Your task to perform on an android device: Open Google Maps and go to "Timeline" Image 0: 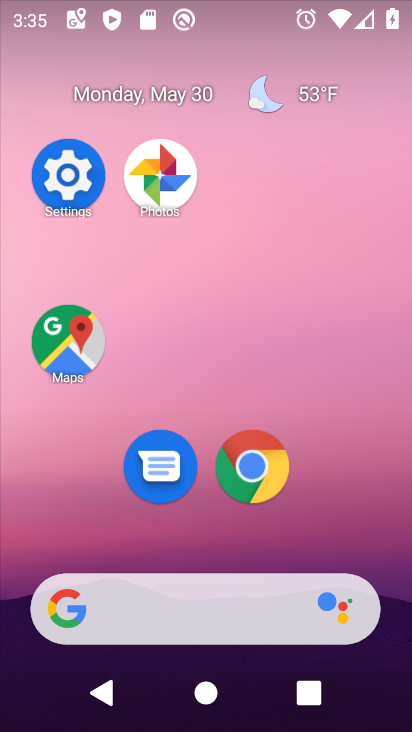
Step 0: click (86, 319)
Your task to perform on an android device: Open Google Maps and go to "Timeline" Image 1: 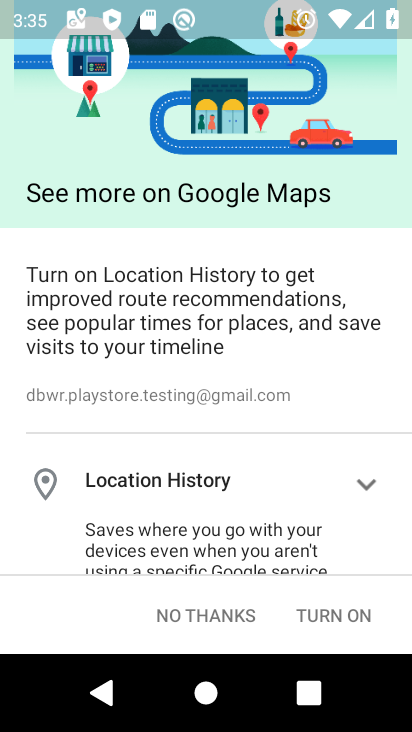
Step 1: click (328, 613)
Your task to perform on an android device: Open Google Maps and go to "Timeline" Image 2: 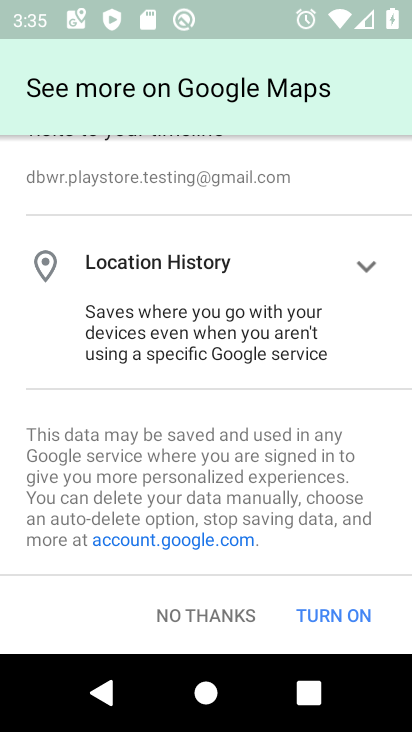
Step 2: click (355, 604)
Your task to perform on an android device: Open Google Maps and go to "Timeline" Image 3: 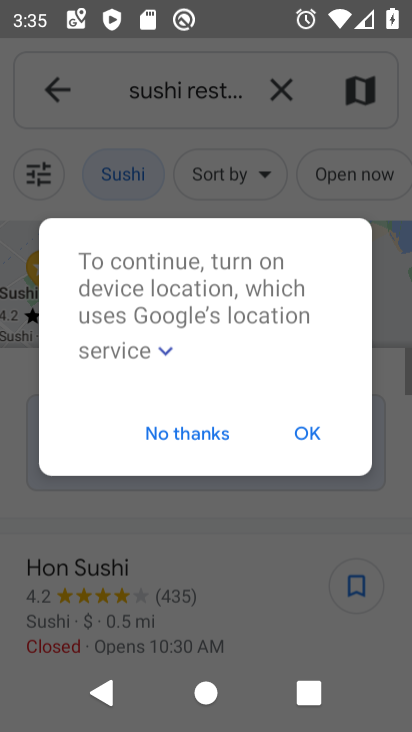
Step 3: click (341, 607)
Your task to perform on an android device: Open Google Maps and go to "Timeline" Image 4: 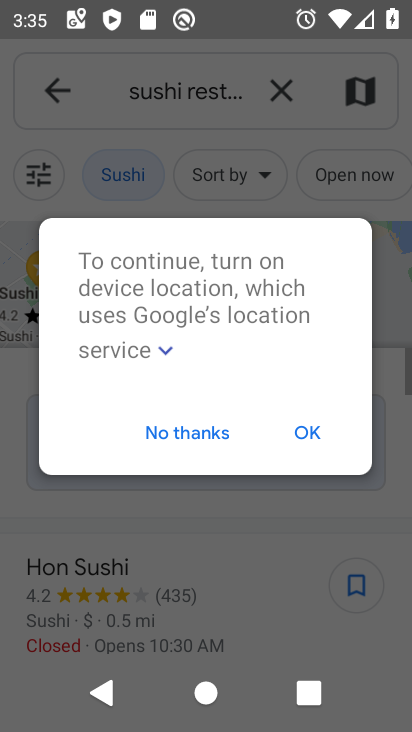
Step 4: click (293, 432)
Your task to perform on an android device: Open Google Maps and go to "Timeline" Image 5: 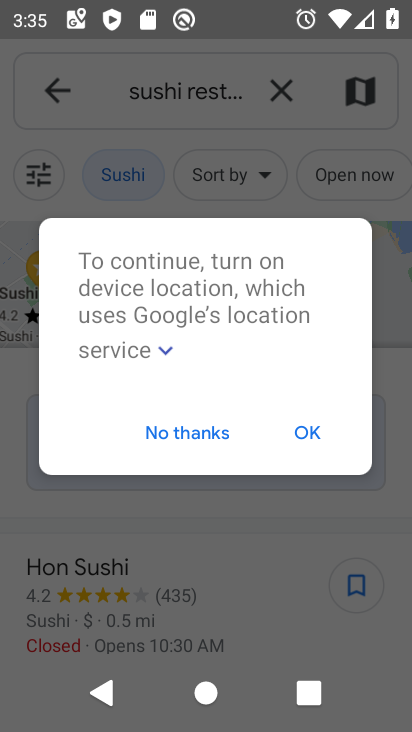
Step 5: click (62, 86)
Your task to perform on an android device: Open Google Maps and go to "Timeline" Image 6: 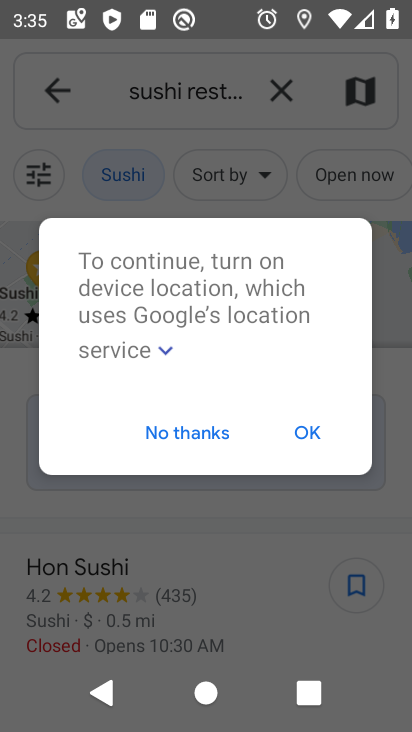
Step 6: click (317, 443)
Your task to perform on an android device: Open Google Maps and go to "Timeline" Image 7: 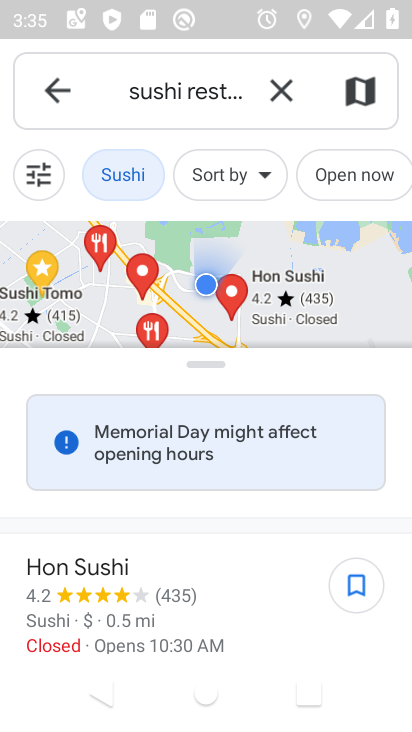
Step 7: click (51, 104)
Your task to perform on an android device: Open Google Maps and go to "Timeline" Image 8: 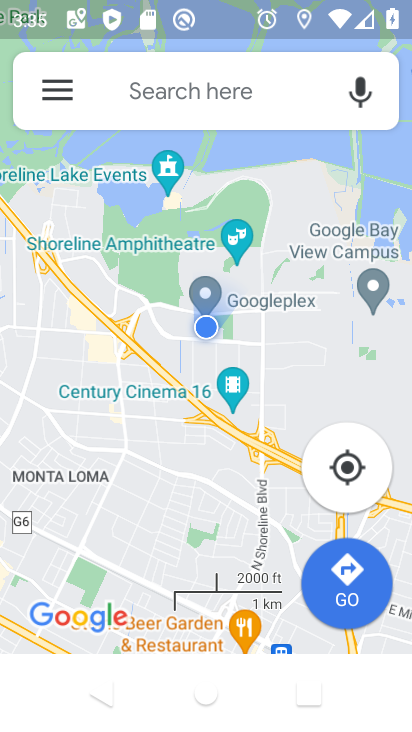
Step 8: click (51, 104)
Your task to perform on an android device: Open Google Maps and go to "Timeline" Image 9: 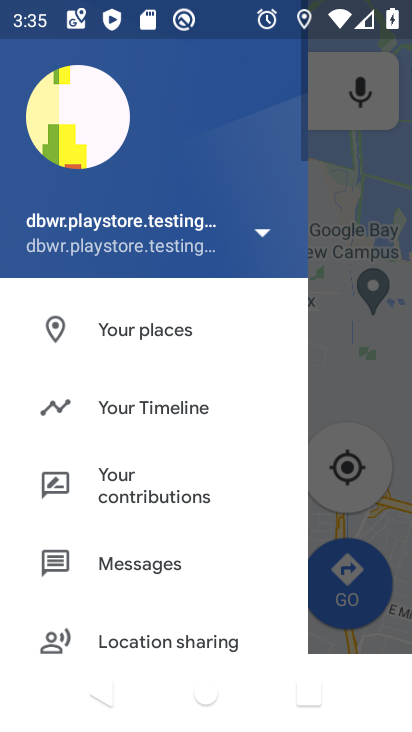
Step 9: click (164, 404)
Your task to perform on an android device: Open Google Maps and go to "Timeline" Image 10: 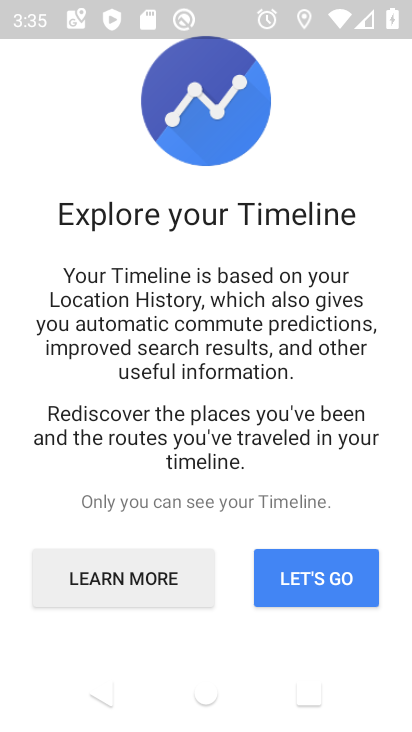
Step 10: click (366, 569)
Your task to perform on an android device: Open Google Maps and go to "Timeline" Image 11: 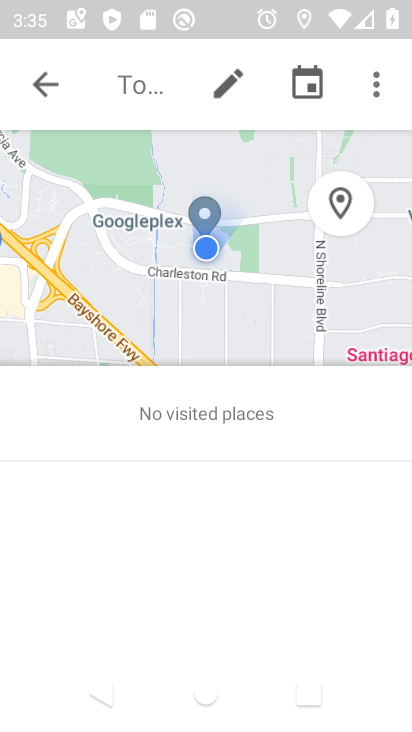
Step 11: task complete